Your task to perform on an android device: turn off improve location accuracy Image 0: 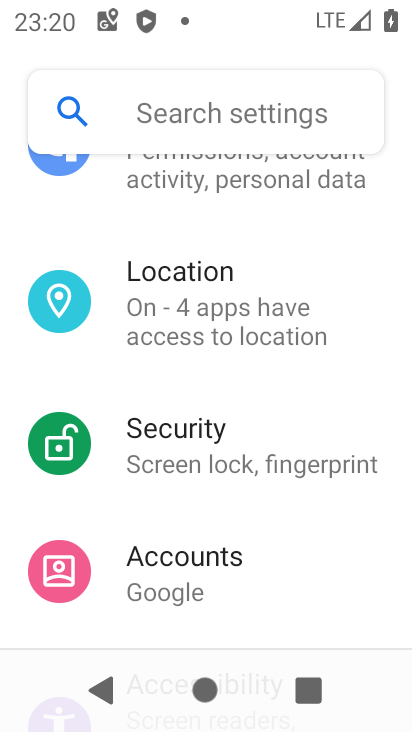
Step 0: click (192, 326)
Your task to perform on an android device: turn off improve location accuracy Image 1: 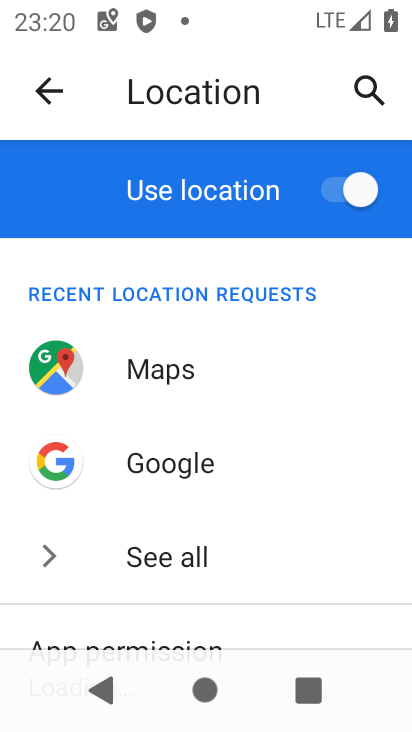
Step 1: drag from (186, 556) to (232, 37)
Your task to perform on an android device: turn off improve location accuracy Image 2: 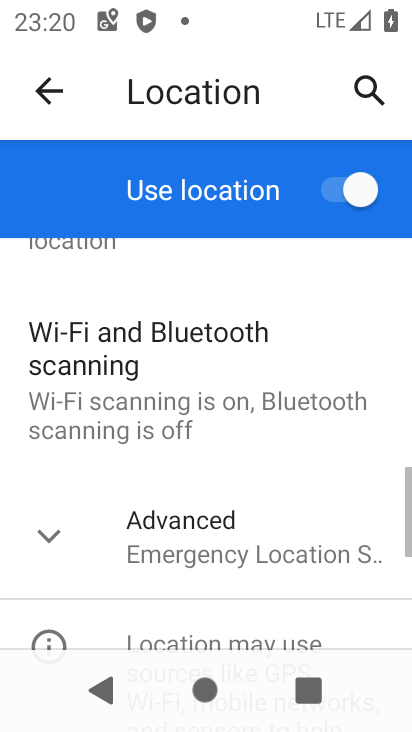
Step 2: click (181, 509)
Your task to perform on an android device: turn off improve location accuracy Image 3: 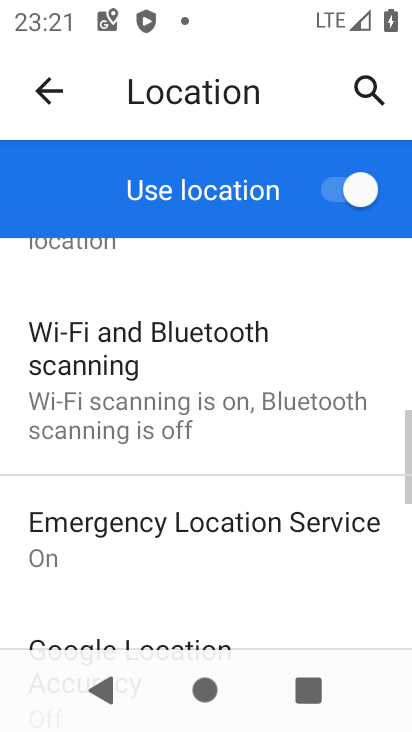
Step 3: drag from (217, 542) to (249, 180)
Your task to perform on an android device: turn off improve location accuracy Image 4: 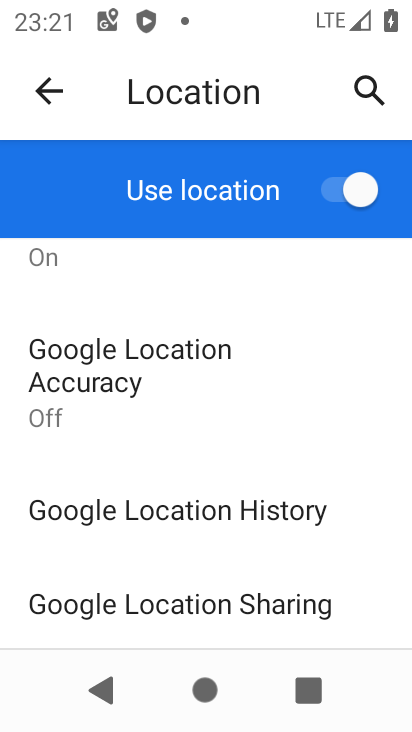
Step 4: click (225, 371)
Your task to perform on an android device: turn off improve location accuracy Image 5: 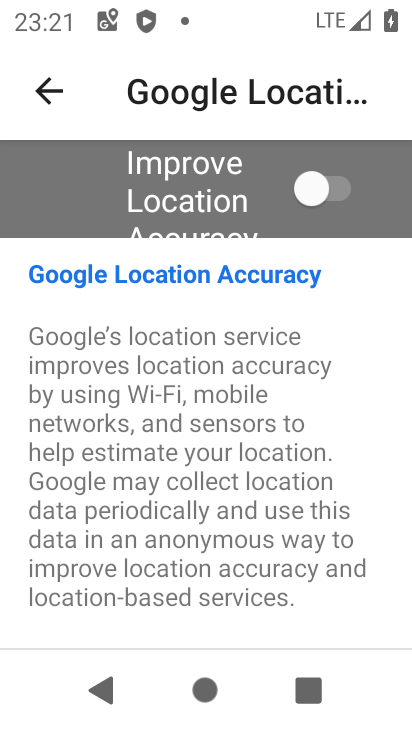
Step 5: task complete